Your task to perform on an android device: change notification settings in the gmail app Image 0: 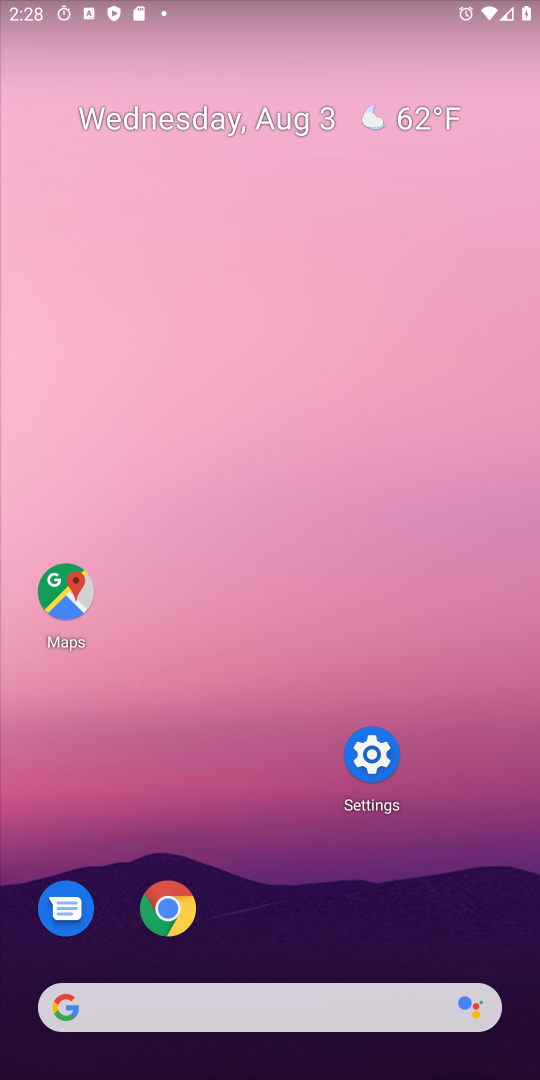
Step 0: drag from (262, 937) to (385, 215)
Your task to perform on an android device: change notification settings in the gmail app Image 1: 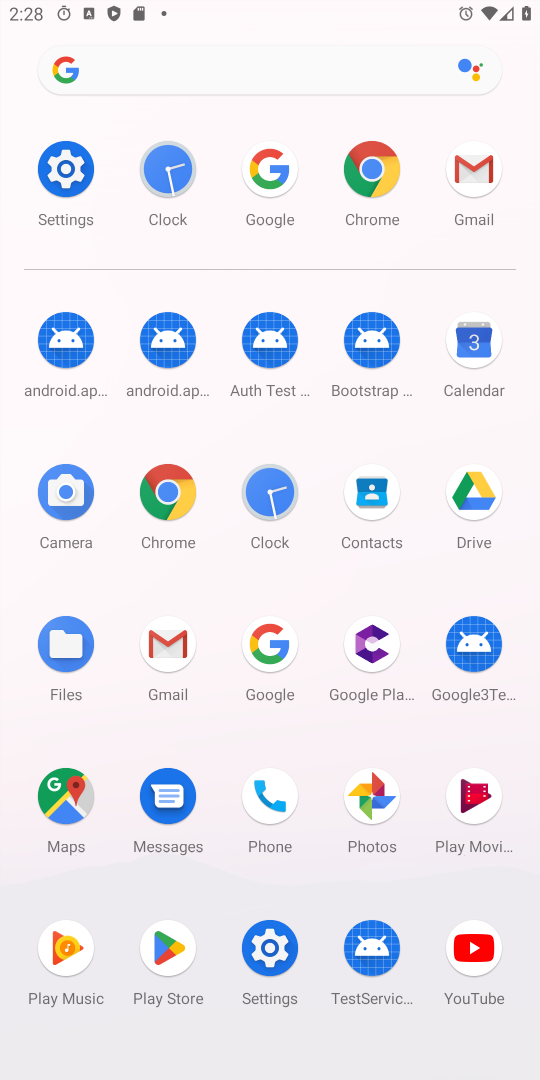
Step 1: click (165, 666)
Your task to perform on an android device: change notification settings in the gmail app Image 2: 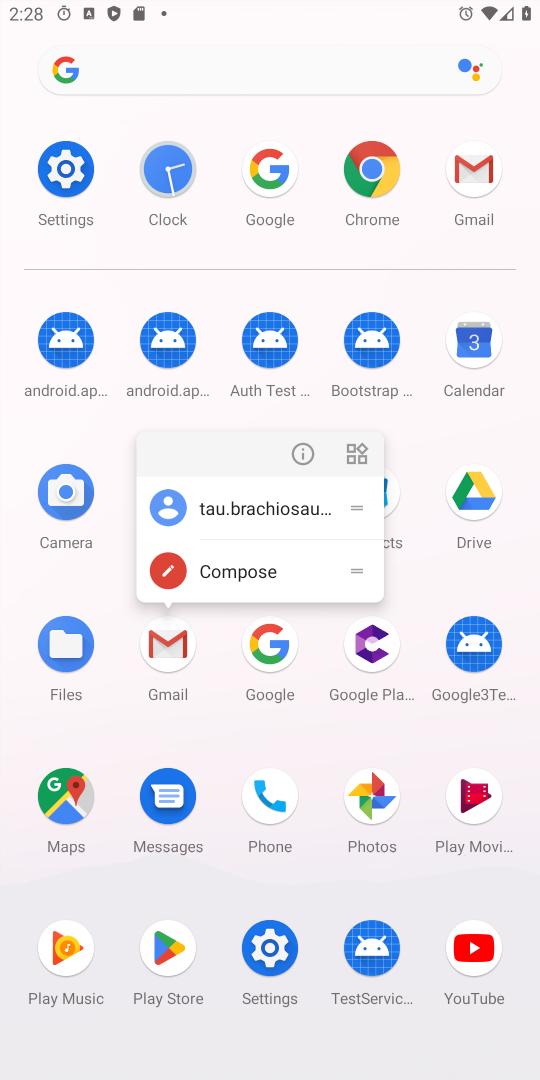
Step 2: click (168, 671)
Your task to perform on an android device: change notification settings in the gmail app Image 3: 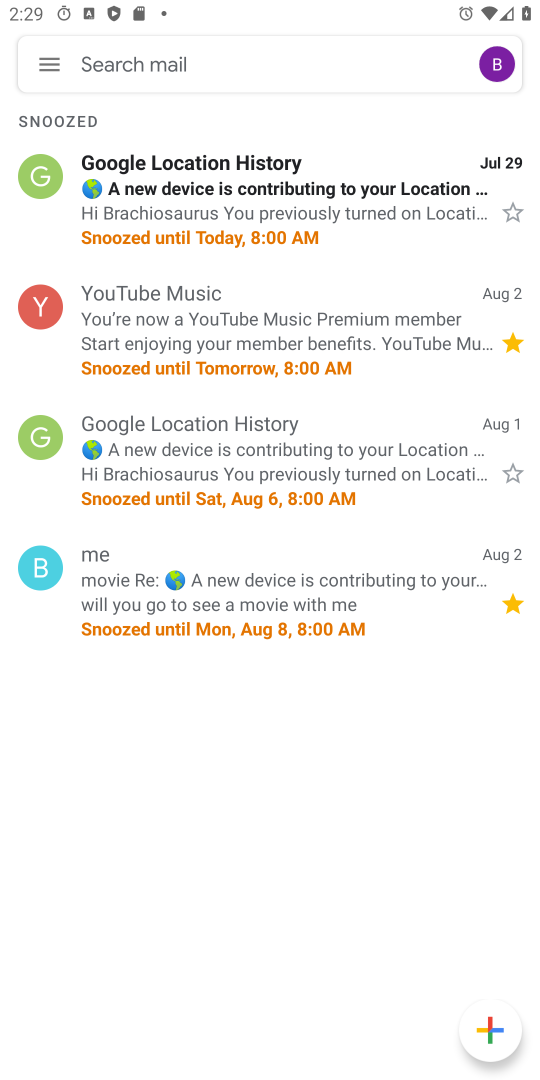
Step 3: click (52, 75)
Your task to perform on an android device: change notification settings in the gmail app Image 4: 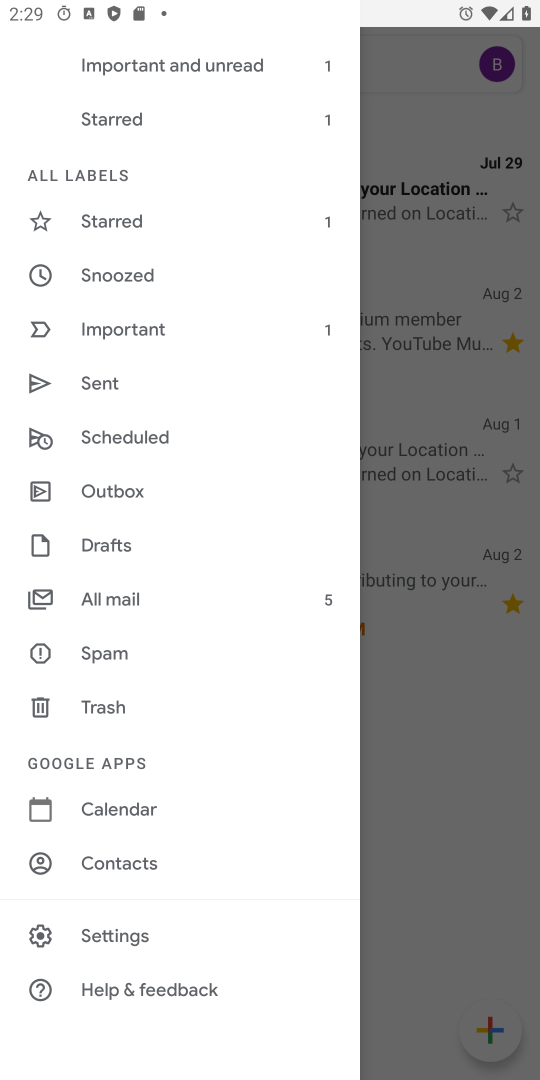
Step 4: click (161, 934)
Your task to perform on an android device: change notification settings in the gmail app Image 5: 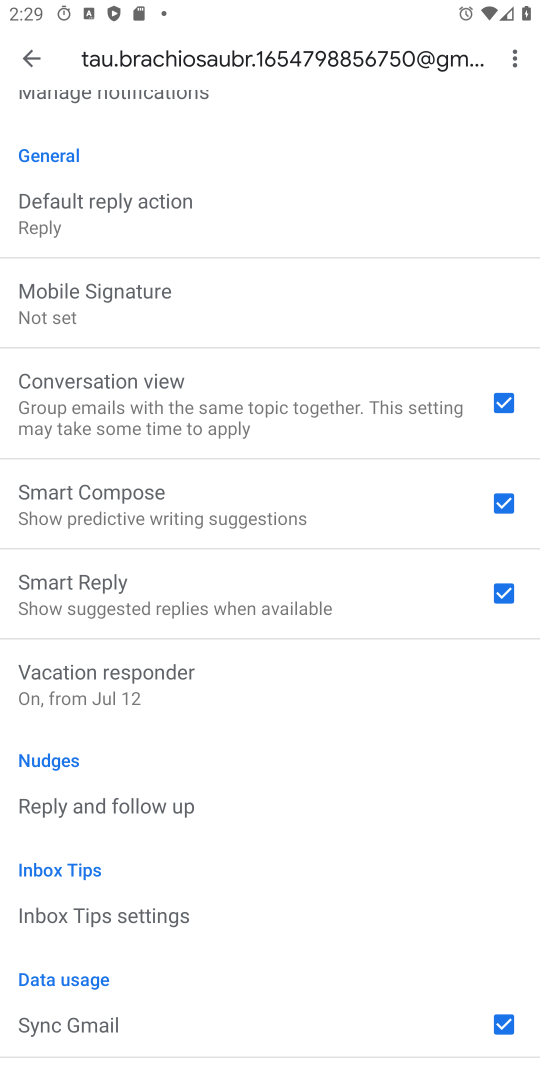
Step 5: drag from (230, 719) to (274, 99)
Your task to perform on an android device: change notification settings in the gmail app Image 6: 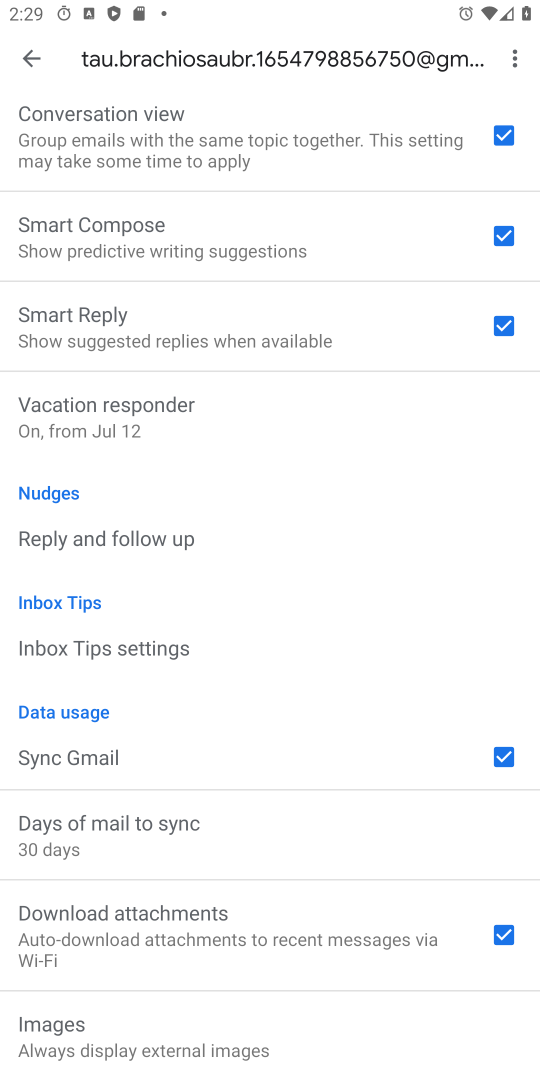
Step 6: drag from (230, 471) to (225, 386)
Your task to perform on an android device: change notification settings in the gmail app Image 7: 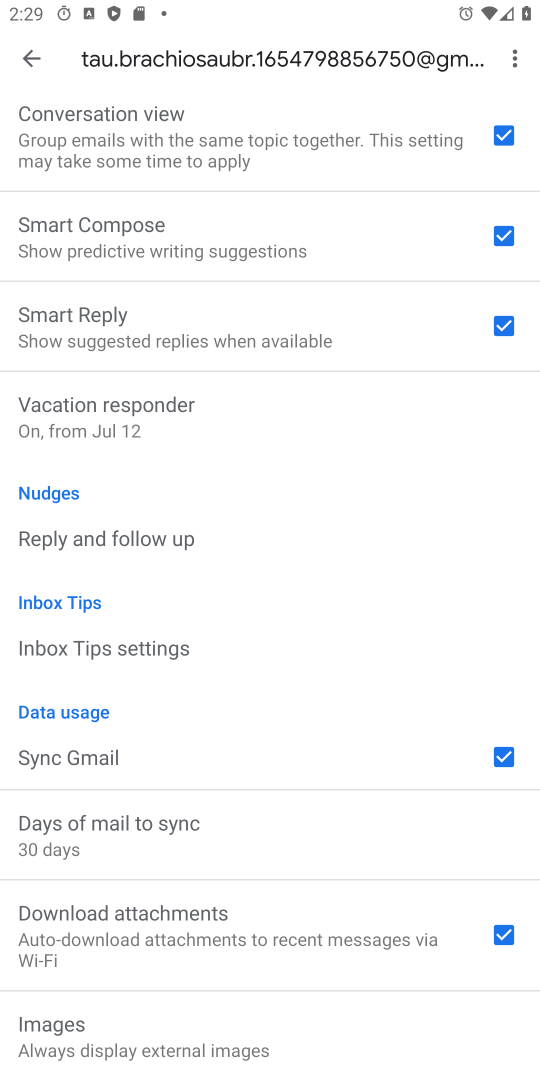
Step 7: drag from (258, 443) to (243, 731)
Your task to perform on an android device: change notification settings in the gmail app Image 8: 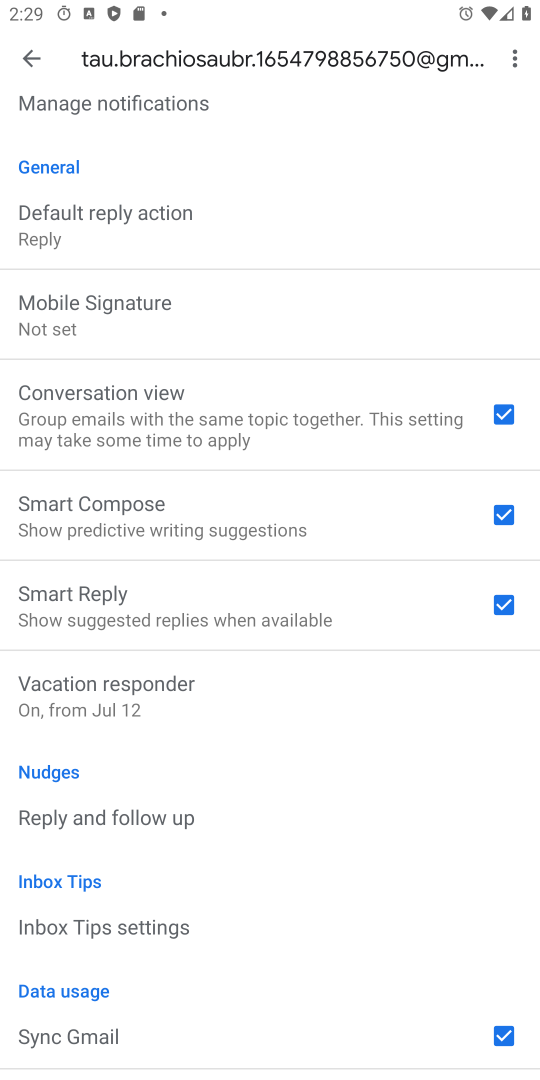
Step 8: drag from (202, 882) to (256, 373)
Your task to perform on an android device: change notification settings in the gmail app Image 9: 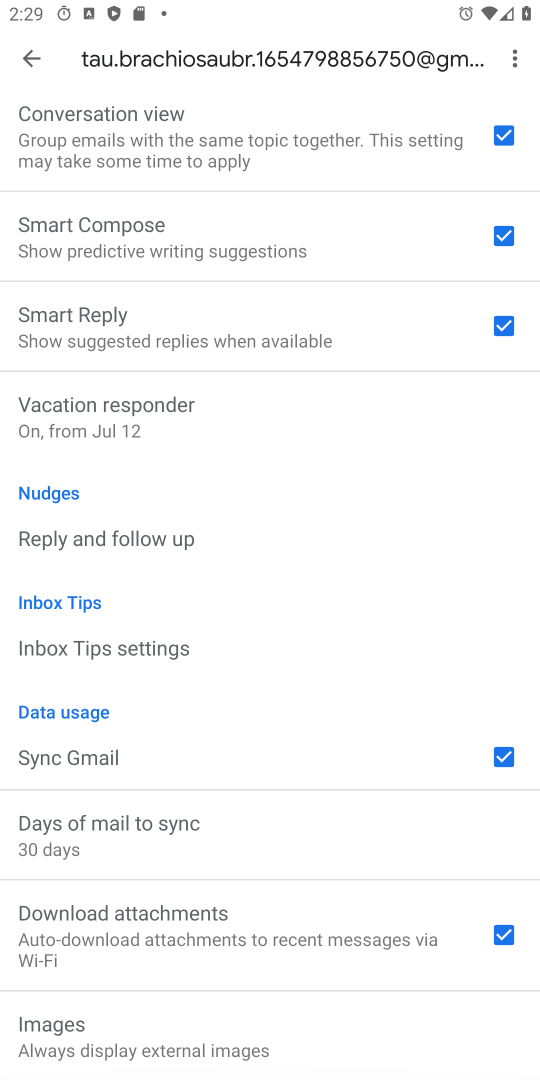
Step 9: drag from (198, 935) to (212, 514)
Your task to perform on an android device: change notification settings in the gmail app Image 10: 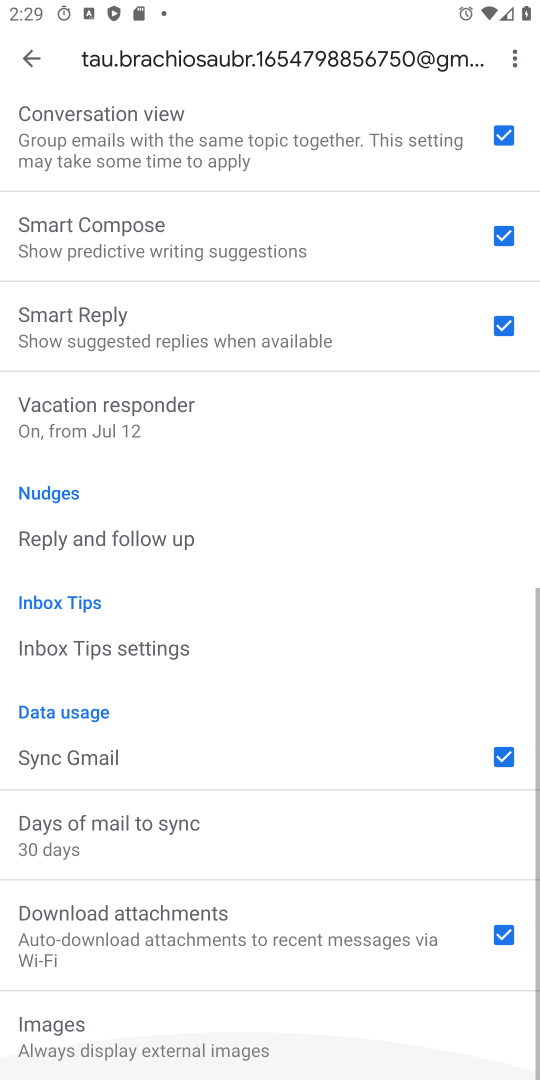
Step 10: drag from (216, 534) to (231, 1070)
Your task to perform on an android device: change notification settings in the gmail app Image 11: 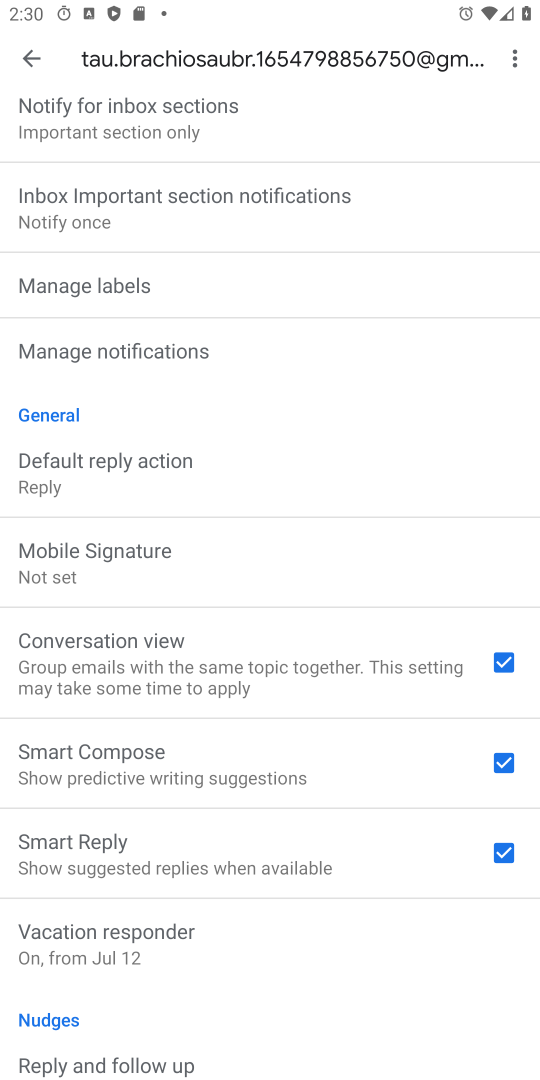
Step 11: click (178, 357)
Your task to perform on an android device: change notification settings in the gmail app Image 12: 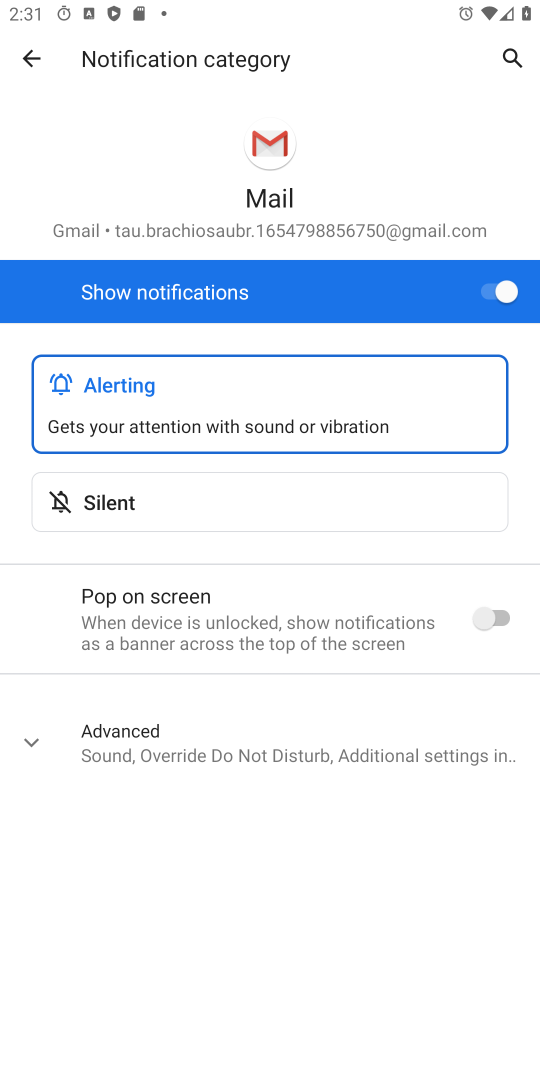
Step 12: click (501, 279)
Your task to perform on an android device: change notification settings in the gmail app Image 13: 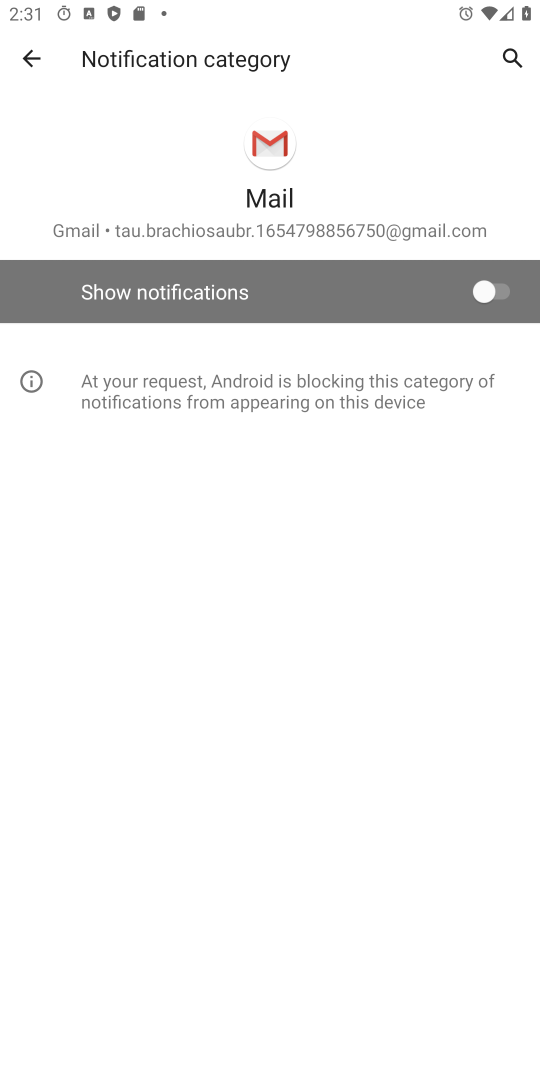
Step 13: task complete